Your task to perform on an android device: show emergency info Image 0: 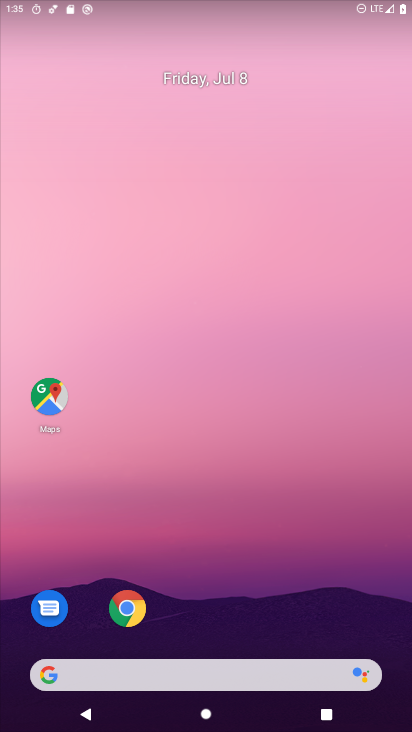
Step 0: drag from (230, 718) to (228, 115)
Your task to perform on an android device: show emergency info Image 1: 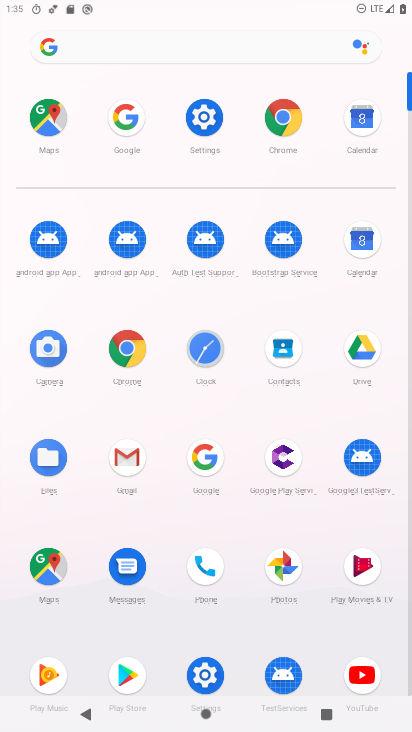
Step 1: click (211, 115)
Your task to perform on an android device: show emergency info Image 2: 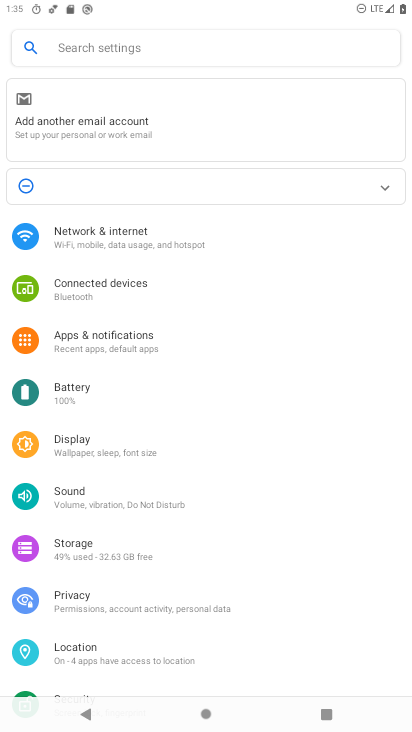
Step 2: drag from (200, 658) to (198, 254)
Your task to perform on an android device: show emergency info Image 3: 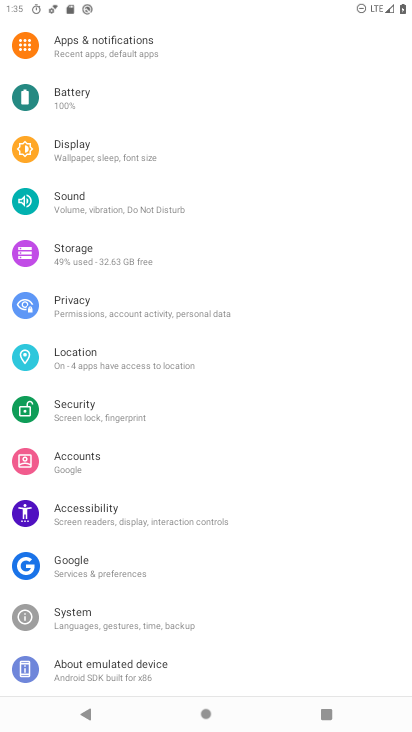
Step 3: drag from (241, 665) to (252, 346)
Your task to perform on an android device: show emergency info Image 4: 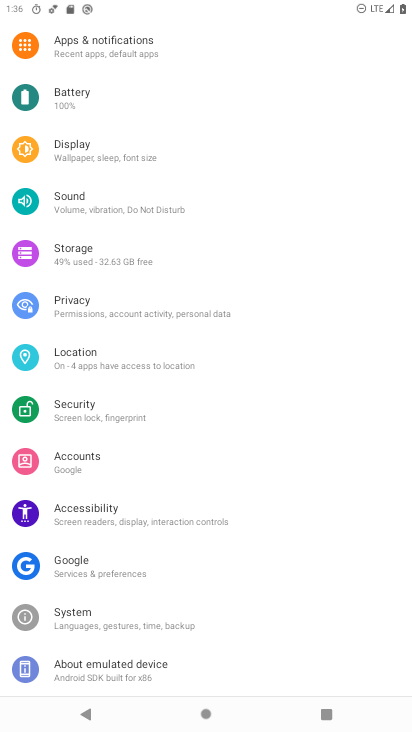
Step 4: click (120, 666)
Your task to perform on an android device: show emergency info Image 5: 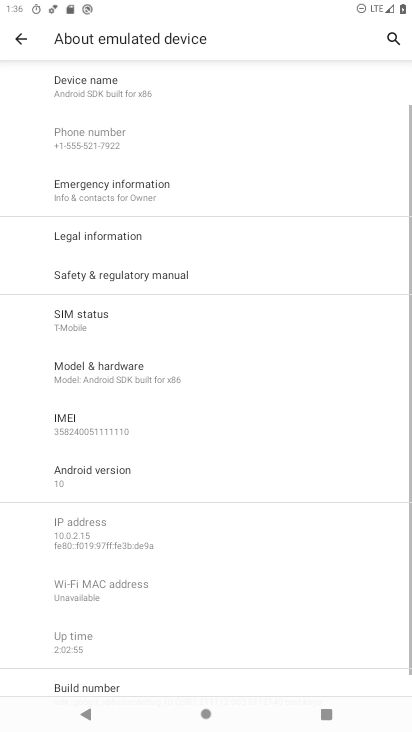
Step 5: click (110, 190)
Your task to perform on an android device: show emergency info Image 6: 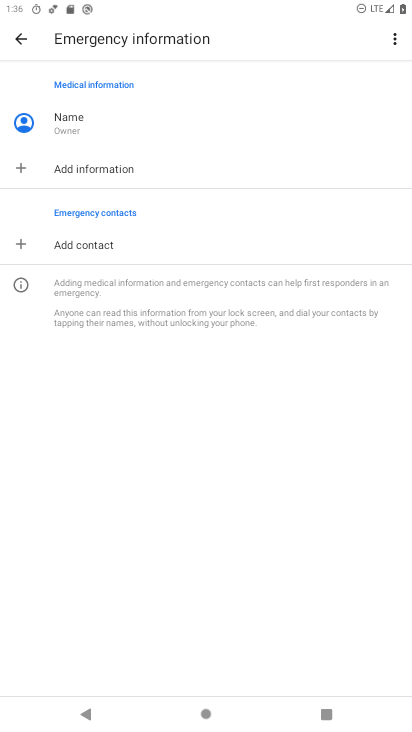
Step 6: task complete